Your task to perform on an android device: manage bookmarks in the chrome app Image 0: 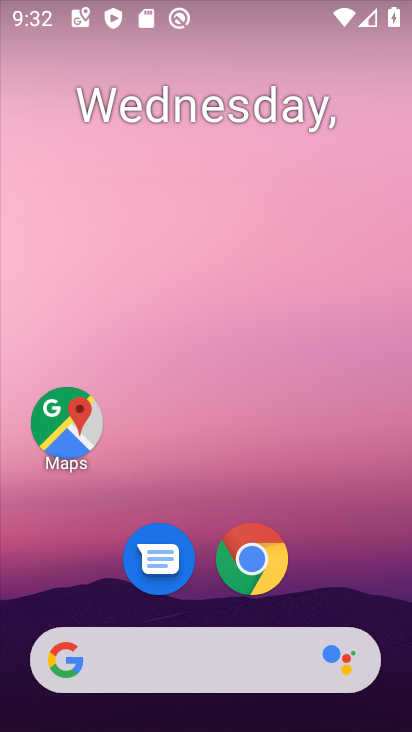
Step 0: click (245, 572)
Your task to perform on an android device: manage bookmarks in the chrome app Image 1: 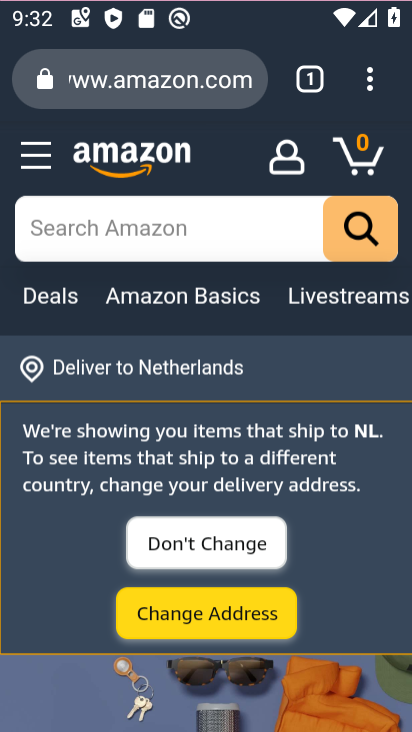
Step 1: click (245, 572)
Your task to perform on an android device: manage bookmarks in the chrome app Image 2: 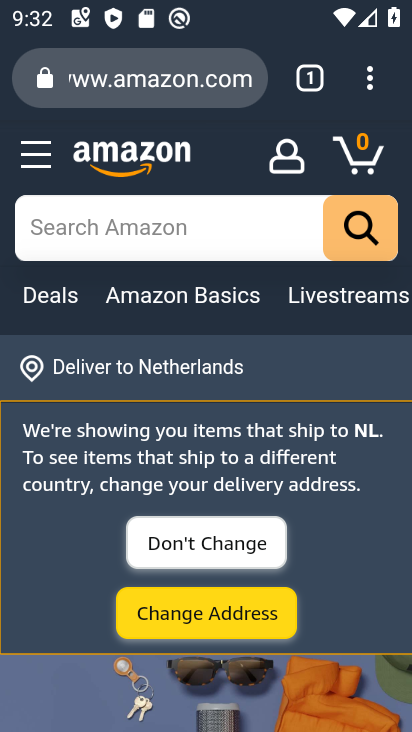
Step 2: click (366, 76)
Your task to perform on an android device: manage bookmarks in the chrome app Image 3: 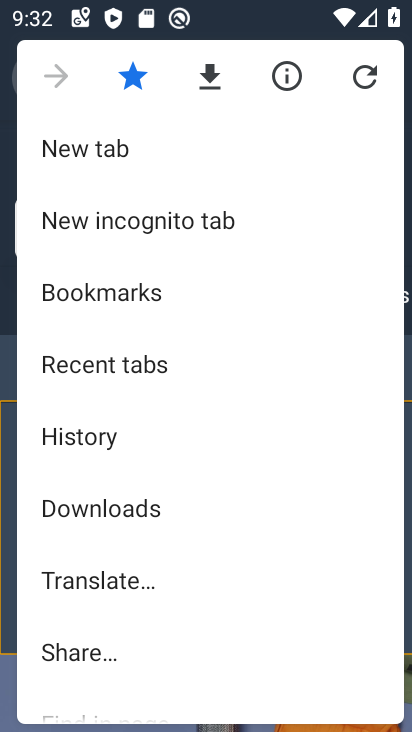
Step 3: click (156, 294)
Your task to perform on an android device: manage bookmarks in the chrome app Image 4: 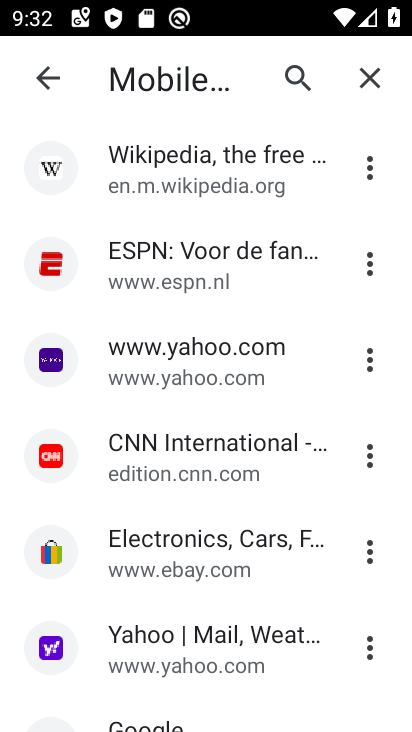
Step 4: click (370, 159)
Your task to perform on an android device: manage bookmarks in the chrome app Image 5: 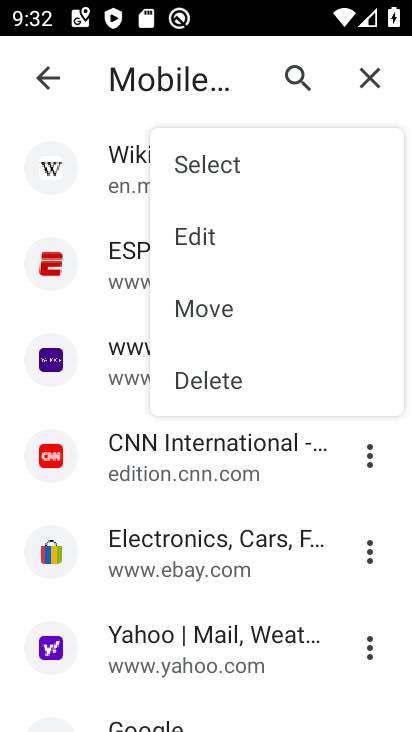
Step 5: click (239, 369)
Your task to perform on an android device: manage bookmarks in the chrome app Image 6: 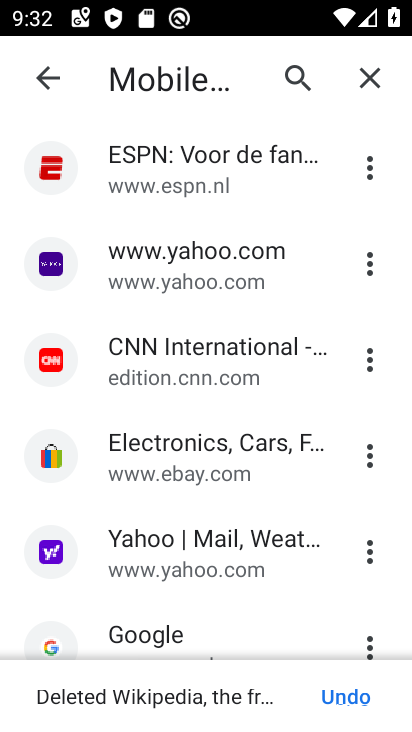
Step 6: click (366, 263)
Your task to perform on an android device: manage bookmarks in the chrome app Image 7: 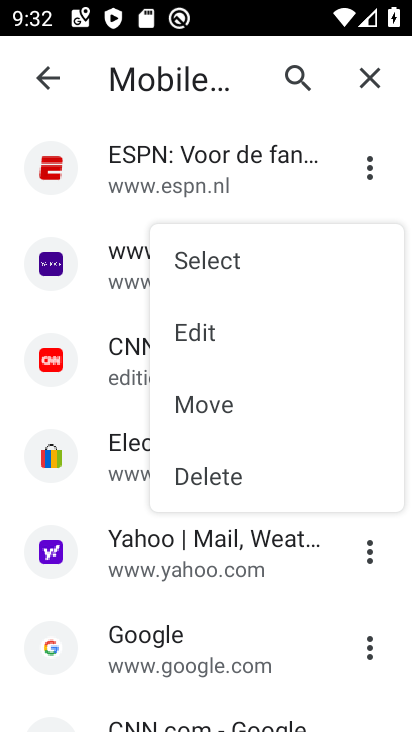
Step 7: click (259, 477)
Your task to perform on an android device: manage bookmarks in the chrome app Image 8: 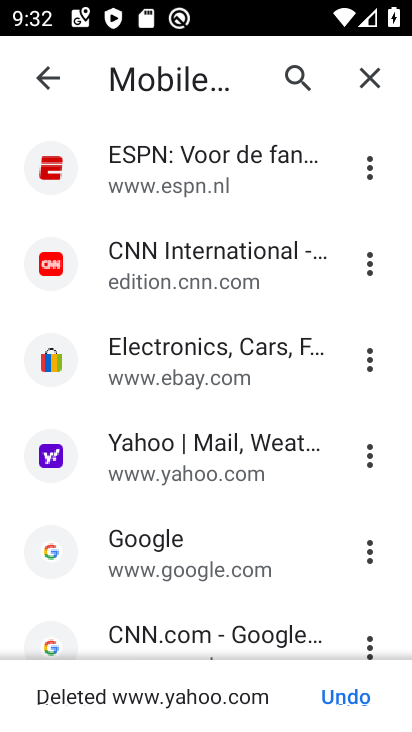
Step 8: task complete